Your task to perform on an android device: open device folders in google photos Image 0: 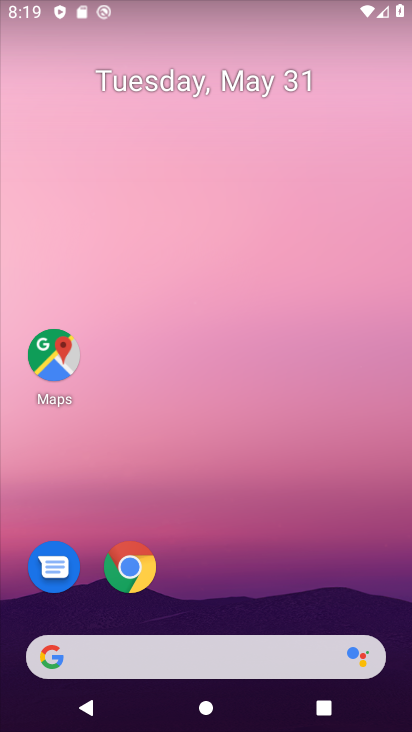
Step 0: drag from (300, 636) to (373, 0)
Your task to perform on an android device: open device folders in google photos Image 1: 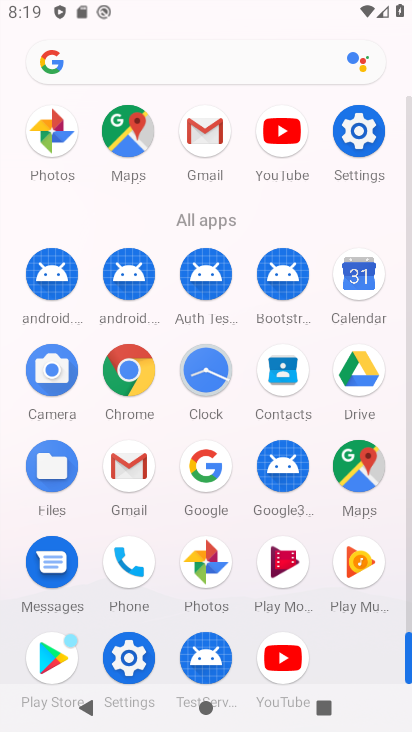
Step 1: click (212, 568)
Your task to perform on an android device: open device folders in google photos Image 2: 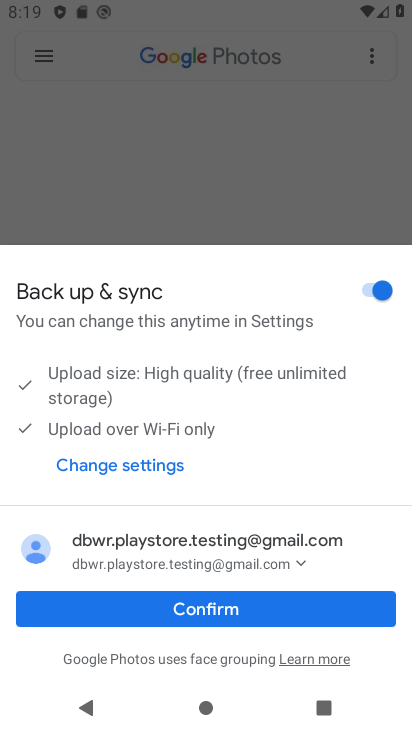
Step 2: click (216, 611)
Your task to perform on an android device: open device folders in google photos Image 3: 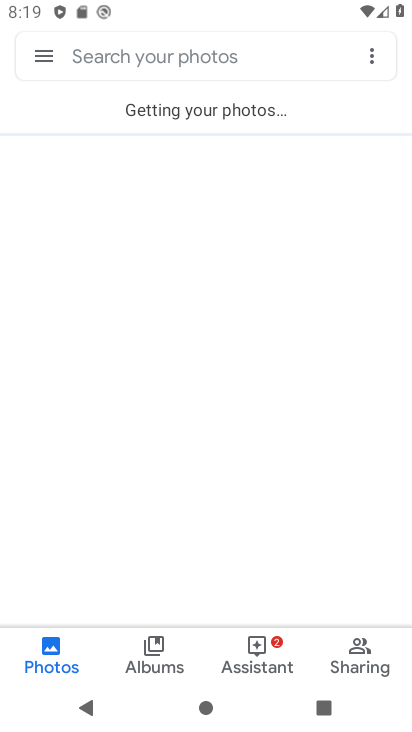
Step 3: click (41, 55)
Your task to perform on an android device: open device folders in google photos Image 4: 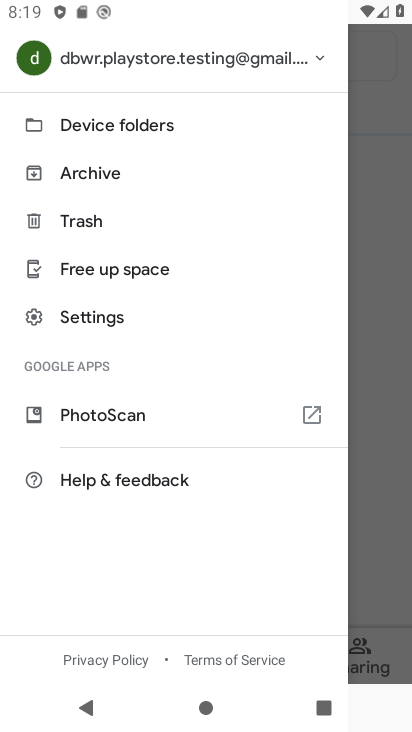
Step 4: click (115, 131)
Your task to perform on an android device: open device folders in google photos Image 5: 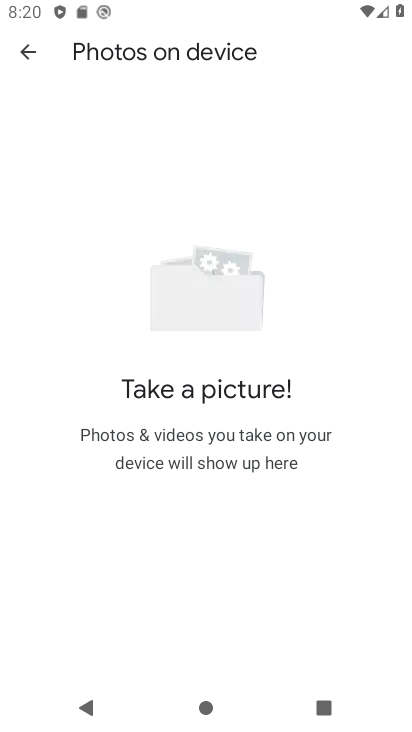
Step 5: task complete